Your task to perform on an android device: open sync settings in chrome Image 0: 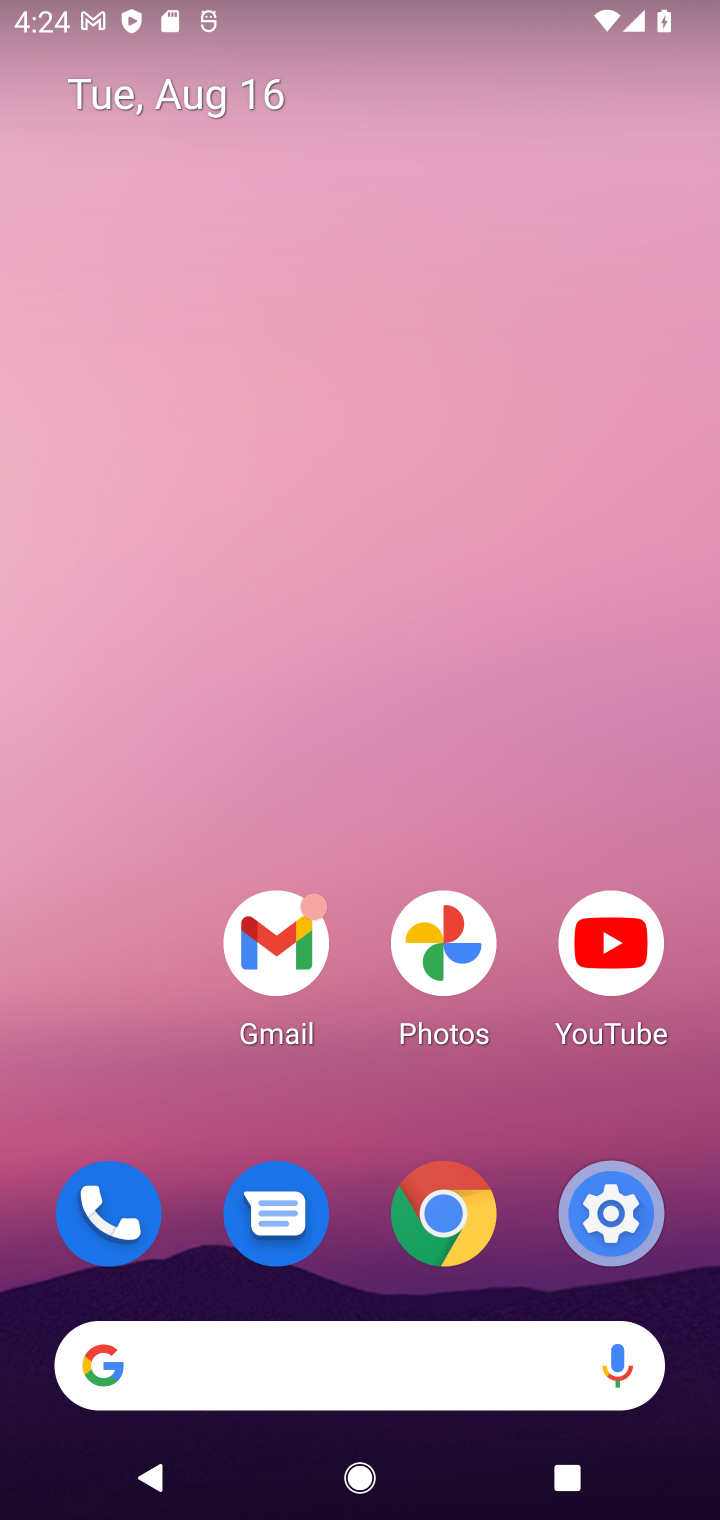
Step 0: drag from (351, 1060) to (408, 2)
Your task to perform on an android device: open sync settings in chrome Image 1: 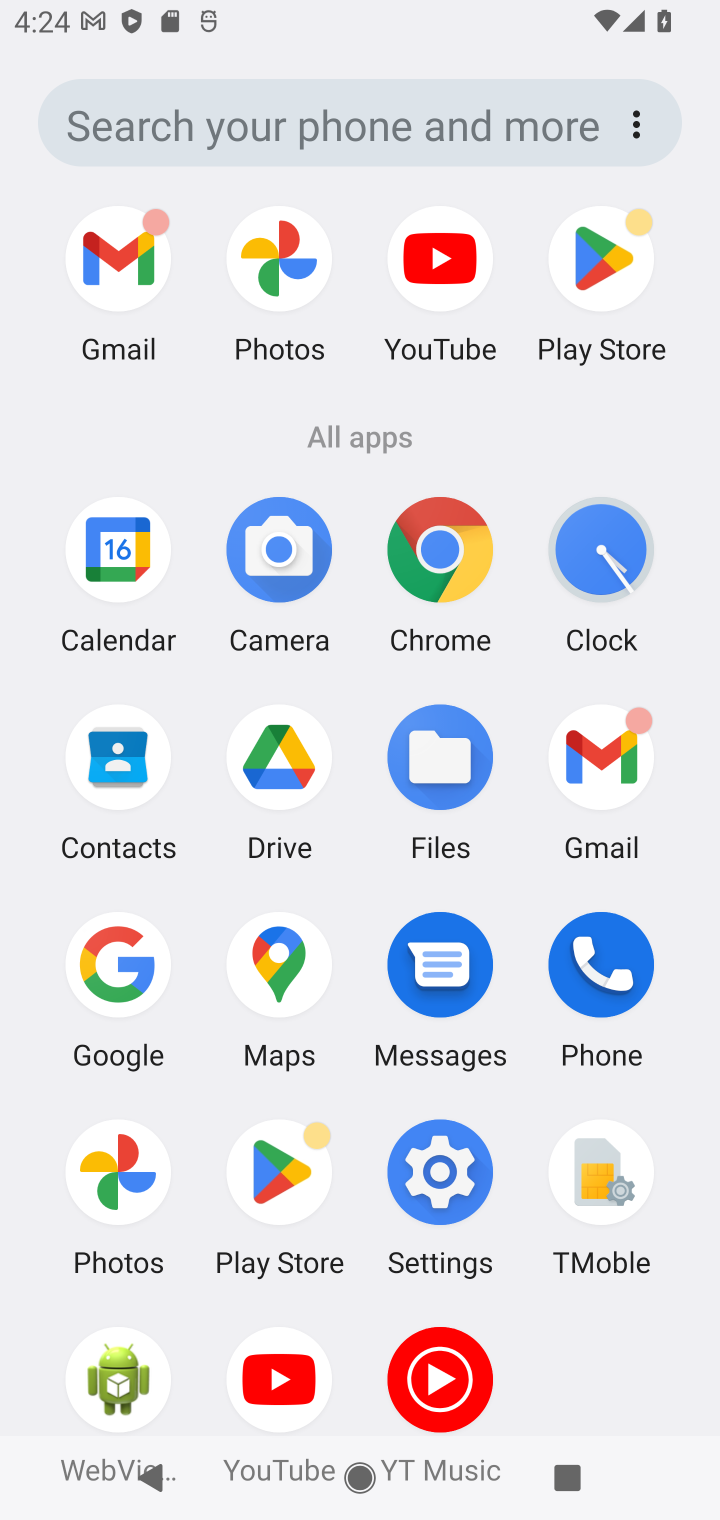
Step 1: click (452, 546)
Your task to perform on an android device: open sync settings in chrome Image 2: 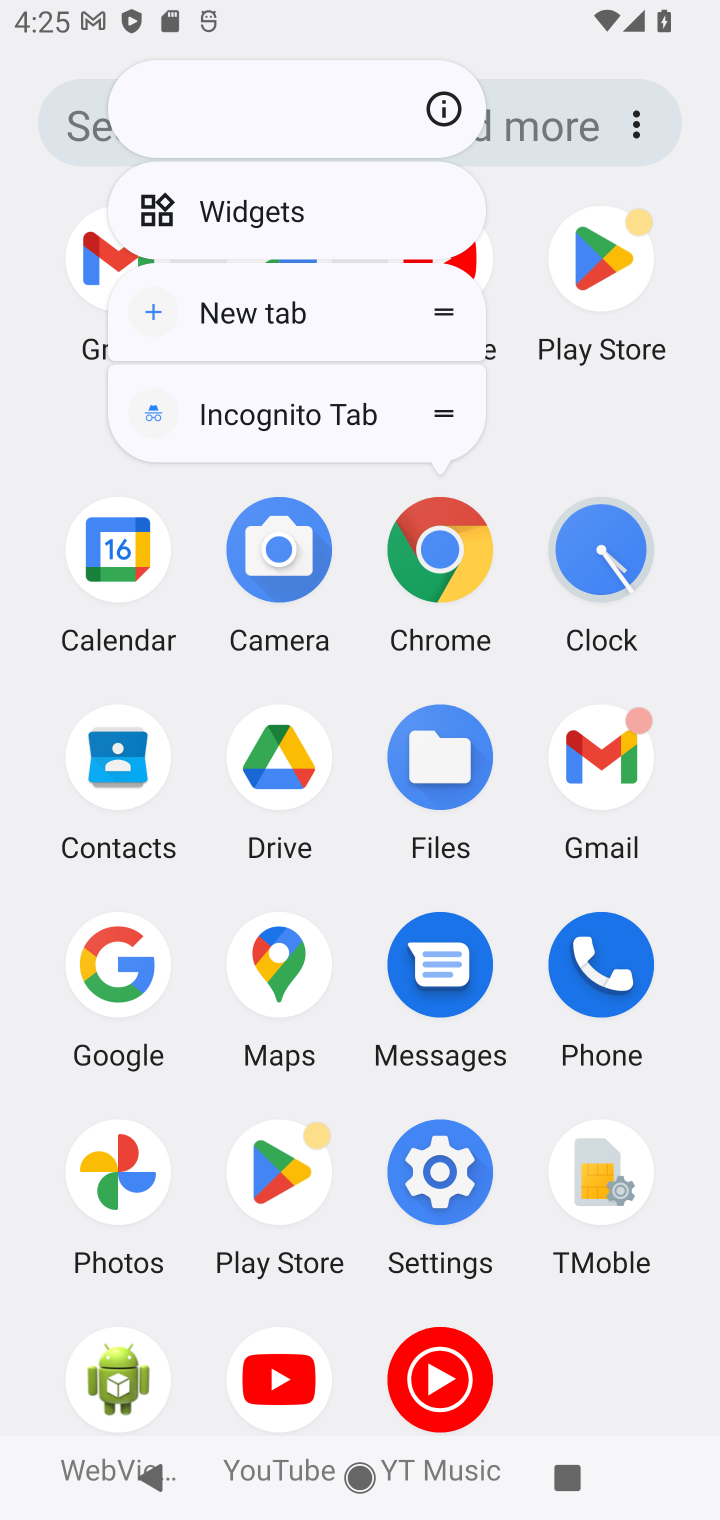
Step 2: click (443, 551)
Your task to perform on an android device: open sync settings in chrome Image 3: 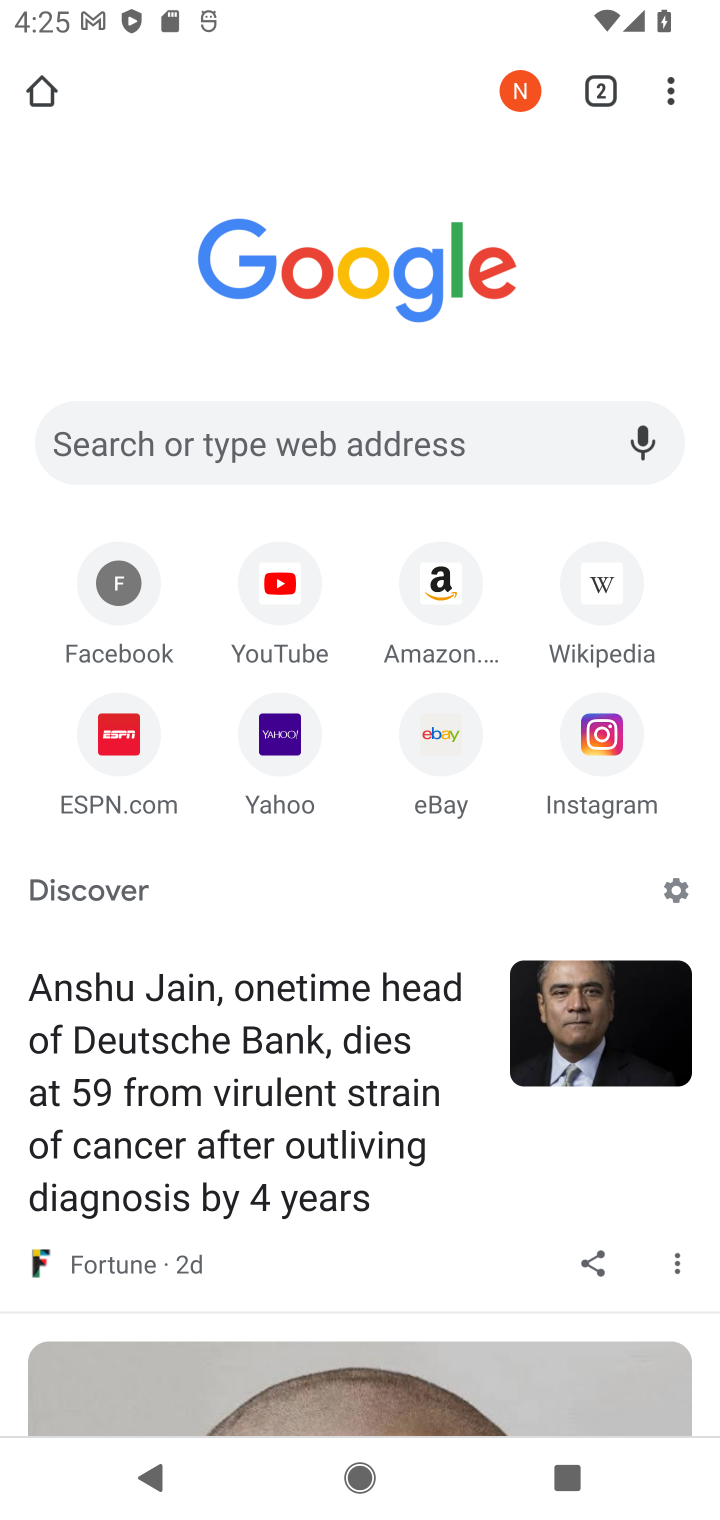
Step 3: drag from (675, 82) to (419, 804)
Your task to perform on an android device: open sync settings in chrome Image 4: 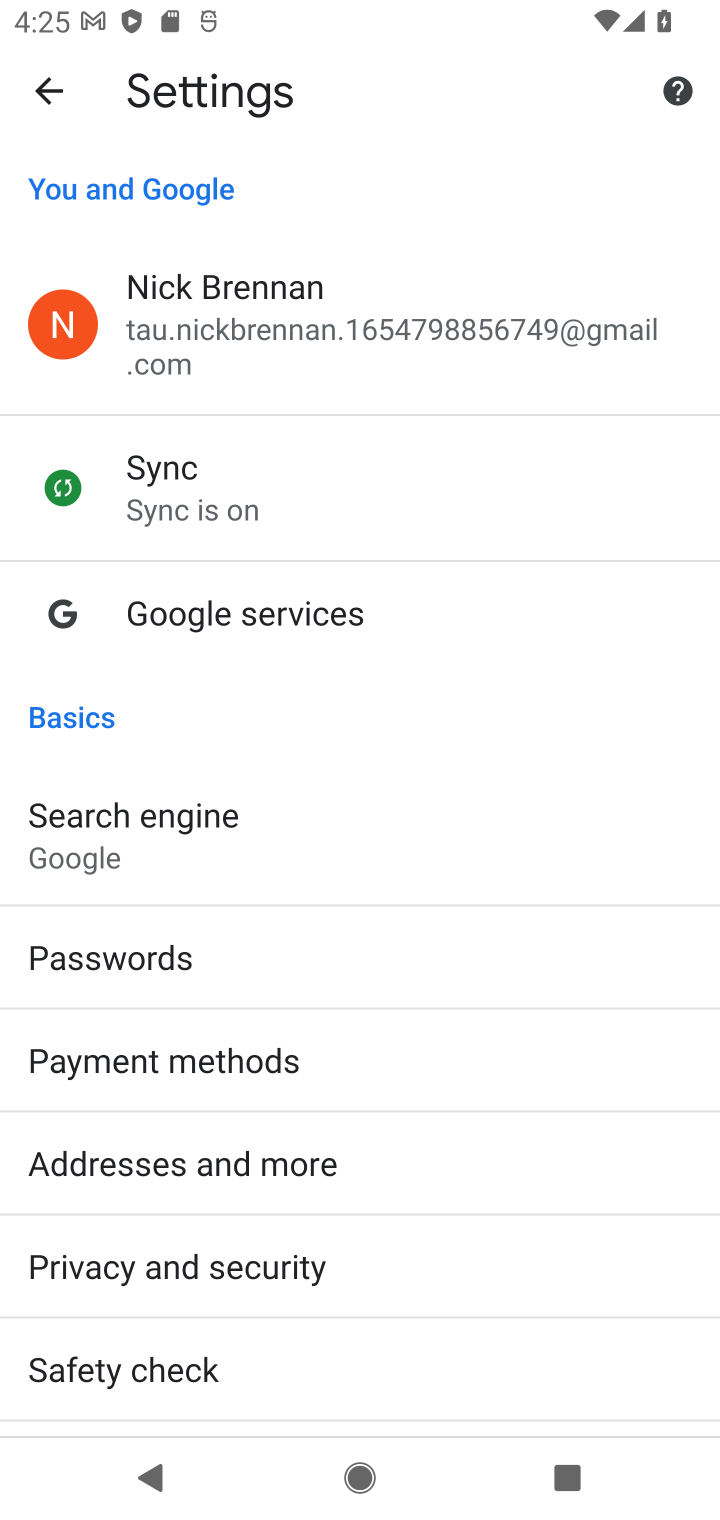
Step 4: click (240, 480)
Your task to perform on an android device: open sync settings in chrome Image 5: 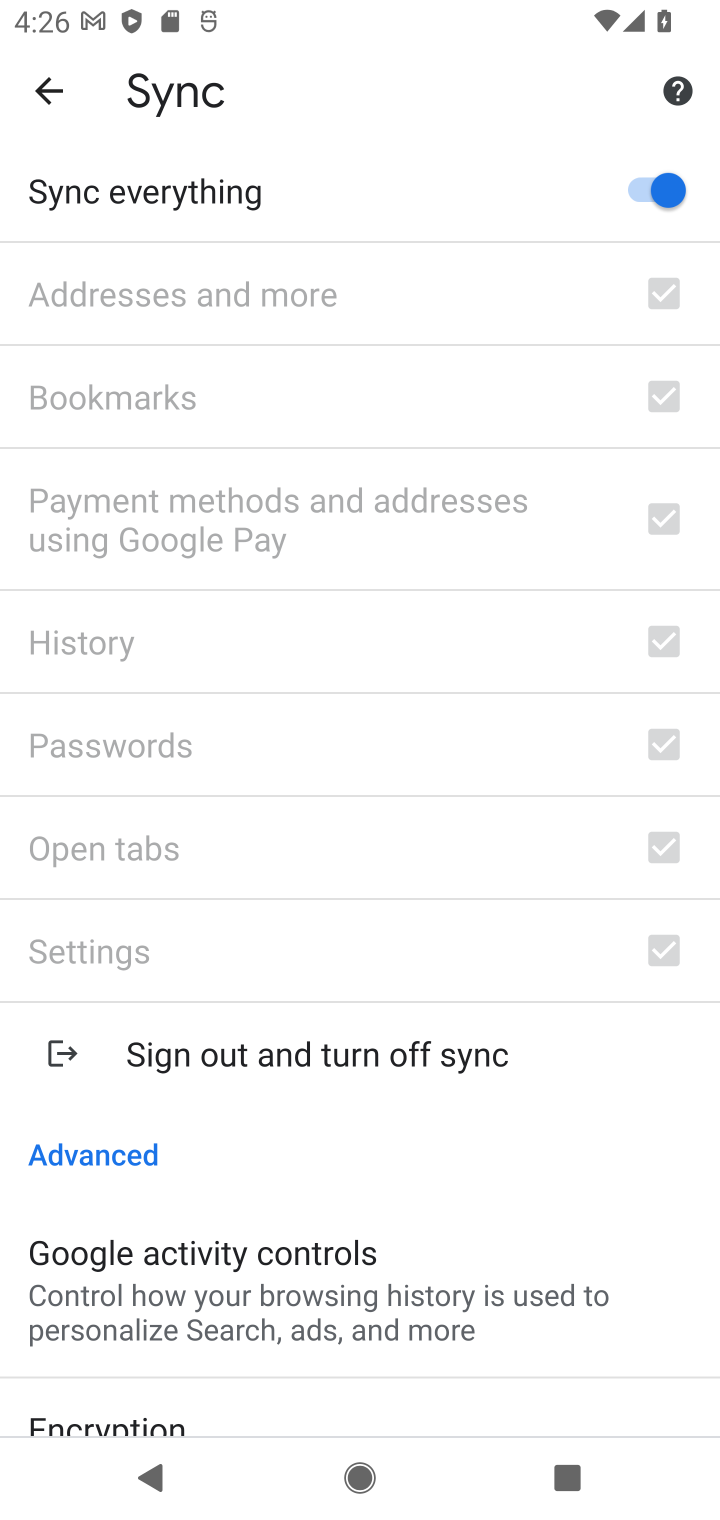
Step 5: task complete